Your task to perform on an android device: Open the map Image 0: 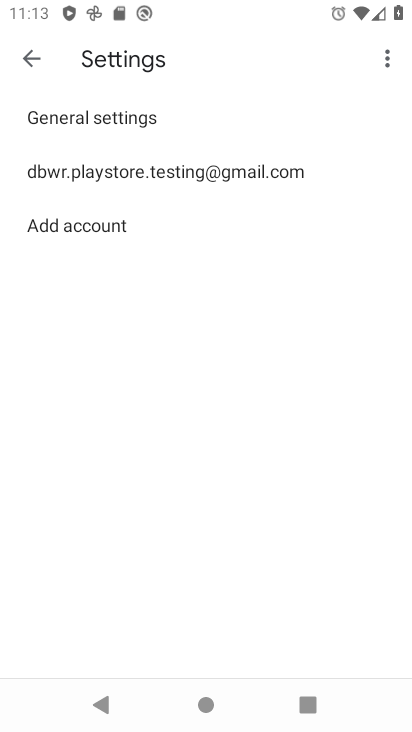
Step 0: press back button
Your task to perform on an android device: Open the map Image 1: 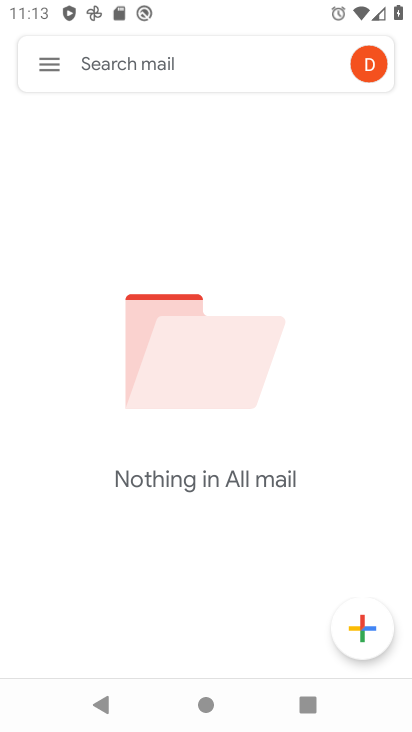
Step 1: press home button
Your task to perform on an android device: Open the map Image 2: 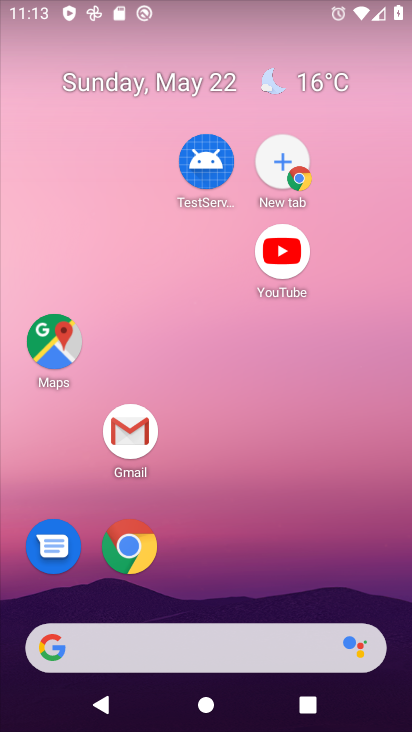
Step 2: drag from (269, 632) to (300, 82)
Your task to perform on an android device: Open the map Image 3: 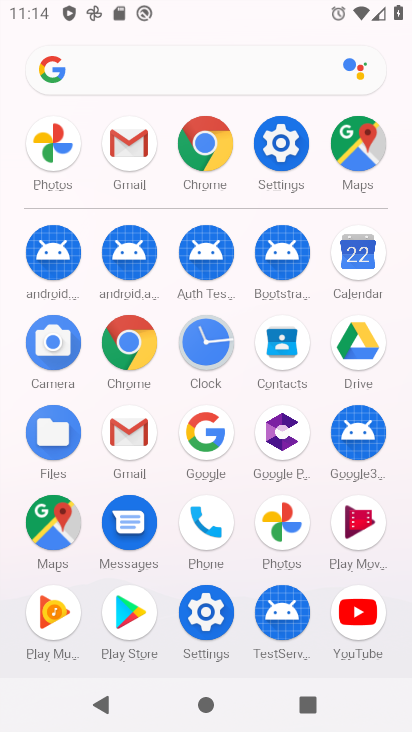
Step 3: click (66, 519)
Your task to perform on an android device: Open the map Image 4: 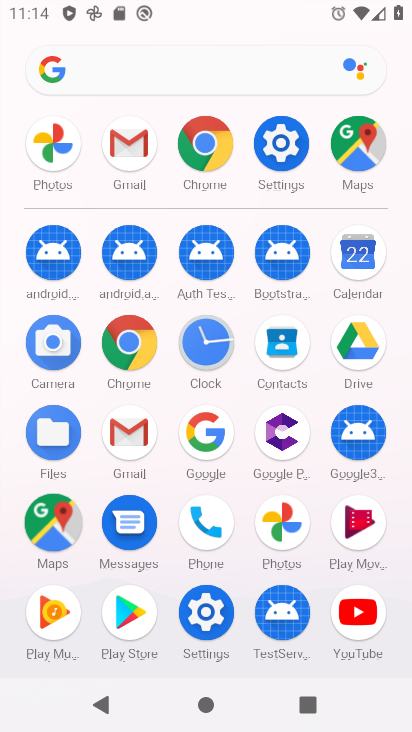
Step 4: click (59, 521)
Your task to perform on an android device: Open the map Image 5: 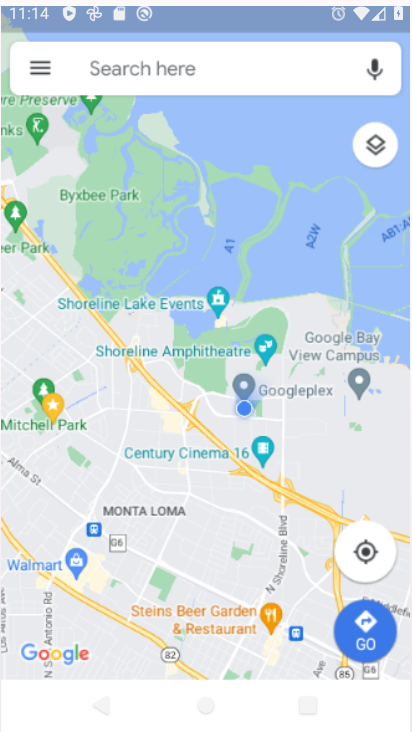
Step 5: click (62, 521)
Your task to perform on an android device: Open the map Image 6: 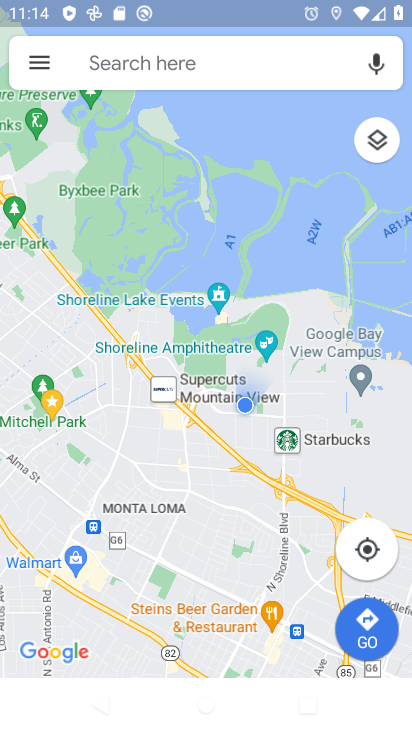
Step 6: task complete